Your task to perform on an android device: change alarm snooze length Image 0: 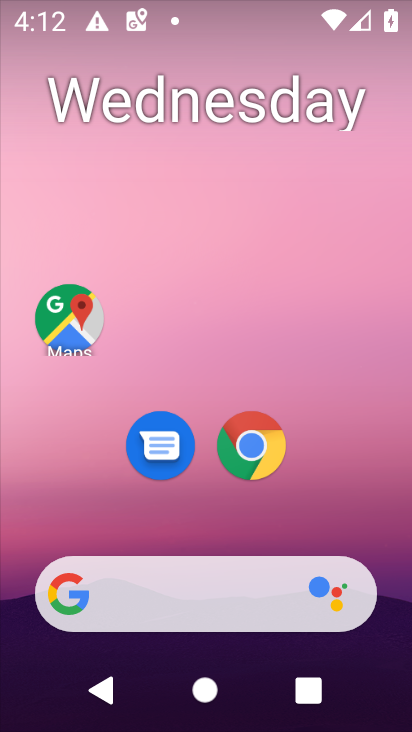
Step 0: drag from (342, 500) to (358, 0)
Your task to perform on an android device: change alarm snooze length Image 1: 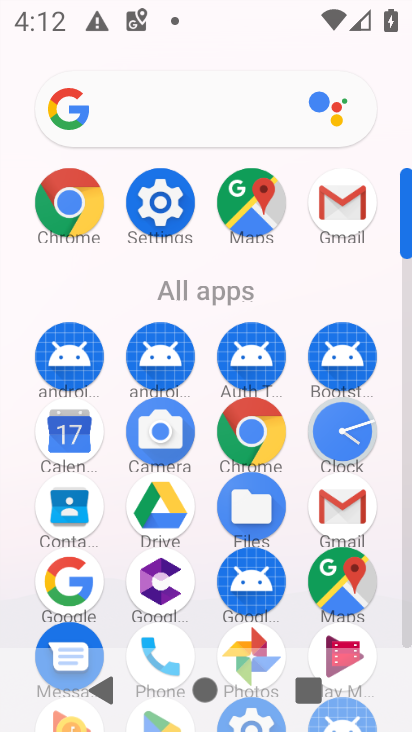
Step 1: click (340, 416)
Your task to perform on an android device: change alarm snooze length Image 2: 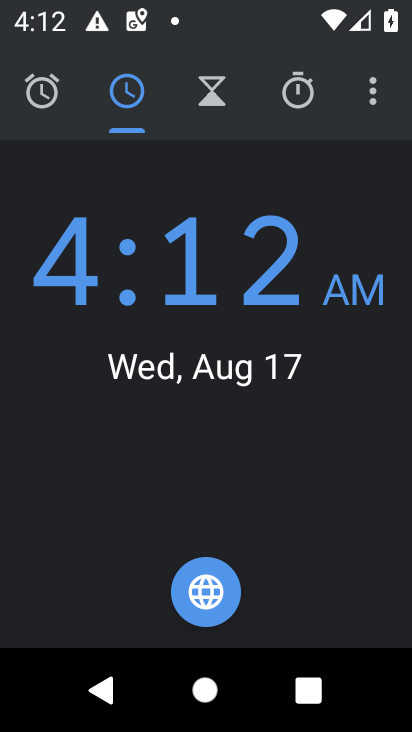
Step 2: drag from (375, 96) to (272, 163)
Your task to perform on an android device: change alarm snooze length Image 3: 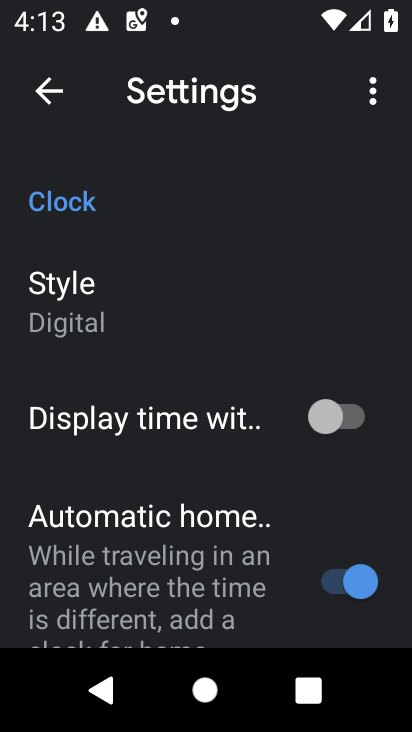
Step 3: drag from (175, 554) to (279, 126)
Your task to perform on an android device: change alarm snooze length Image 4: 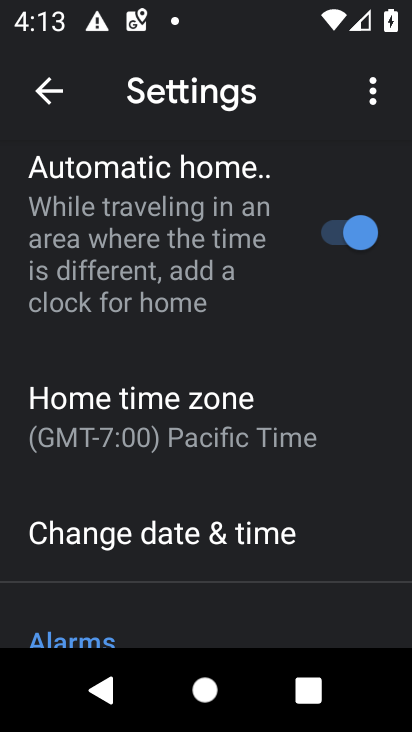
Step 4: drag from (158, 509) to (249, 118)
Your task to perform on an android device: change alarm snooze length Image 5: 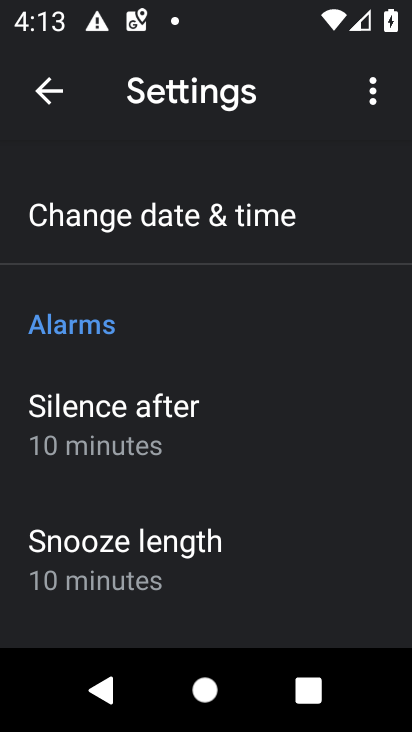
Step 5: click (140, 534)
Your task to perform on an android device: change alarm snooze length Image 6: 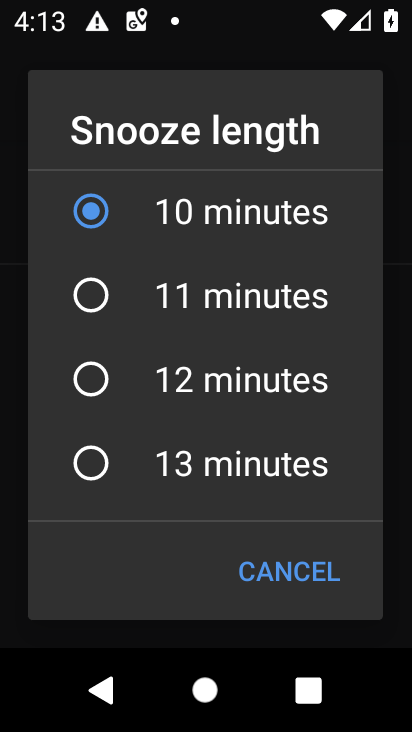
Step 6: click (230, 292)
Your task to perform on an android device: change alarm snooze length Image 7: 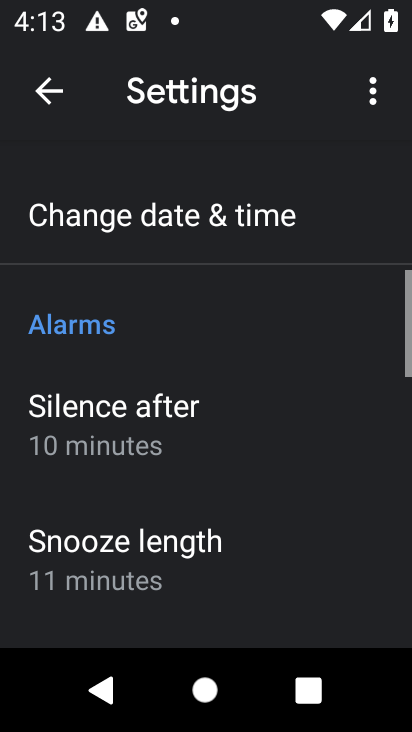
Step 7: task complete